Your task to perform on an android device: Search for usb-a on walmart.com, select the first entry, and add it to the cart. Image 0: 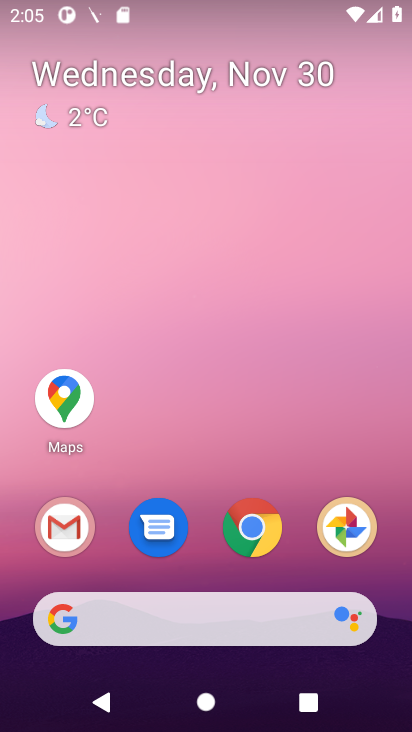
Step 0: click (270, 534)
Your task to perform on an android device: Search for usb-a on walmart.com, select the first entry, and add it to the cart. Image 1: 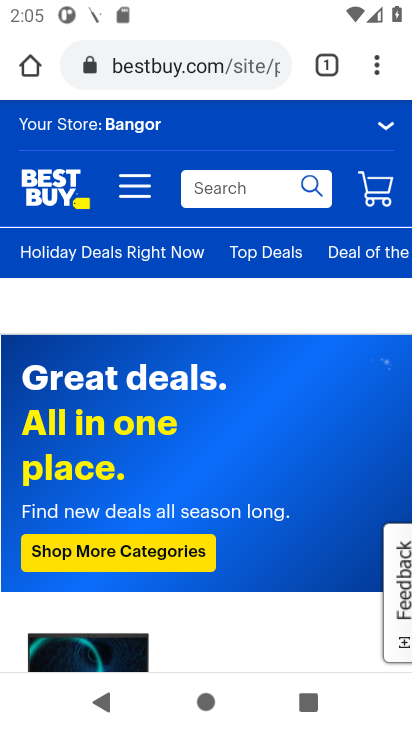
Step 1: click (159, 63)
Your task to perform on an android device: Search for usb-a on walmart.com, select the first entry, and add it to the cart. Image 2: 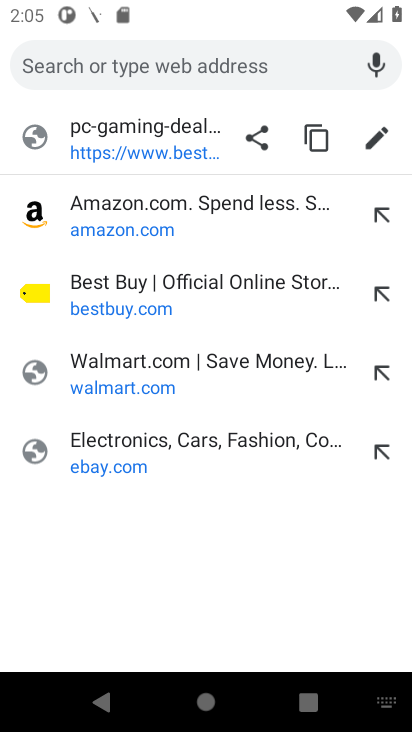
Step 2: click (170, 391)
Your task to perform on an android device: Search for usb-a on walmart.com, select the first entry, and add it to the cart. Image 3: 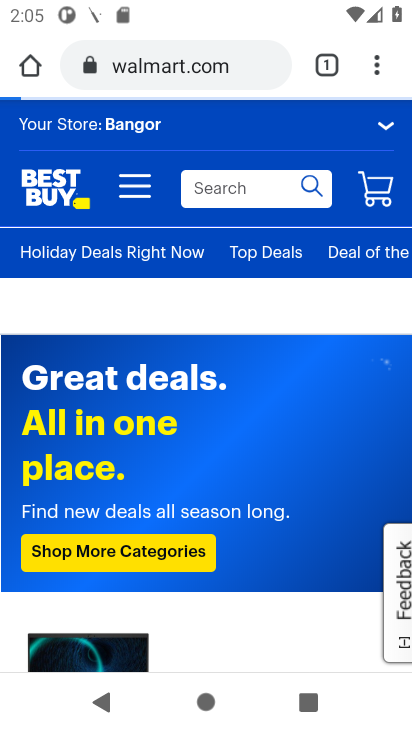
Step 3: click (272, 185)
Your task to perform on an android device: Search for usb-a on walmart.com, select the first entry, and add it to the cart. Image 4: 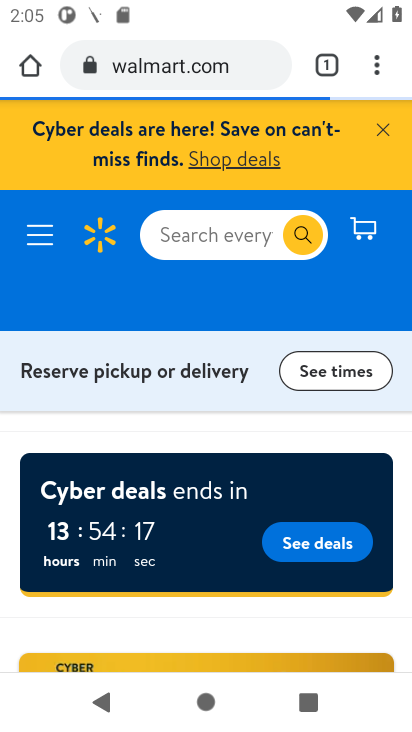
Step 4: type "usb-a"
Your task to perform on an android device: Search for usb-a on walmart.com, select the first entry, and add it to the cart. Image 5: 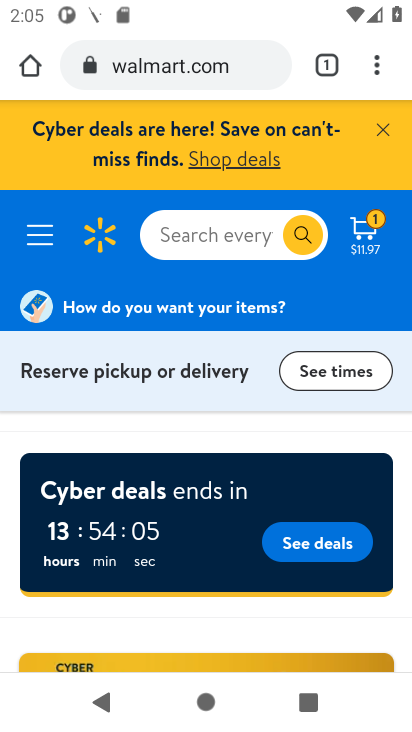
Step 5: click (208, 623)
Your task to perform on an android device: Search for usb-a on walmart.com, select the first entry, and add it to the cart. Image 6: 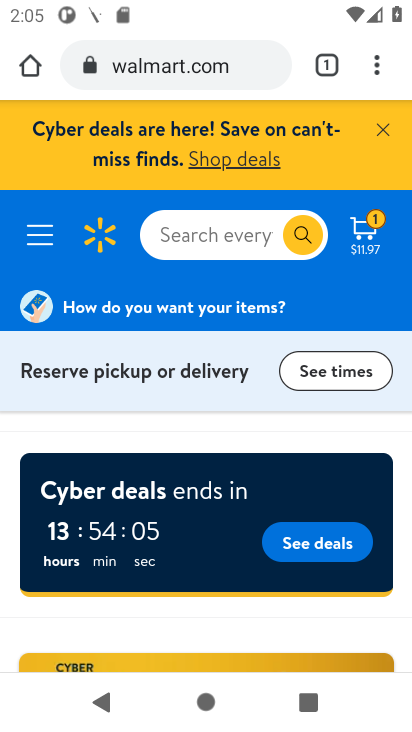
Step 6: task complete